Your task to perform on an android device: Open Google Chrome and click the shortcut for Amazon.com Image 0: 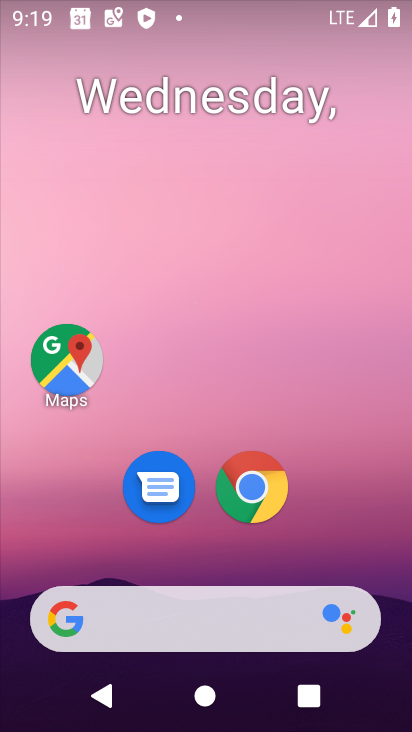
Step 0: drag from (263, 650) to (149, 238)
Your task to perform on an android device: Open Google Chrome and click the shortcut for Amazon.com Image 1: 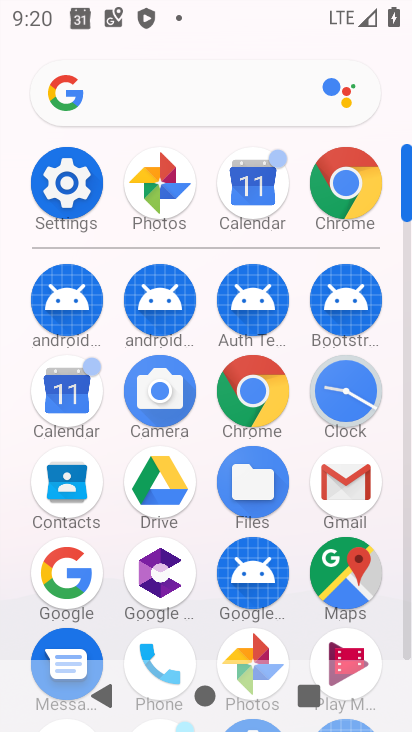
Step 1: click (330, 188)
Your task to perform on an android device: Open Google Chrome and click the shortcut for Amazon.com Image 2: 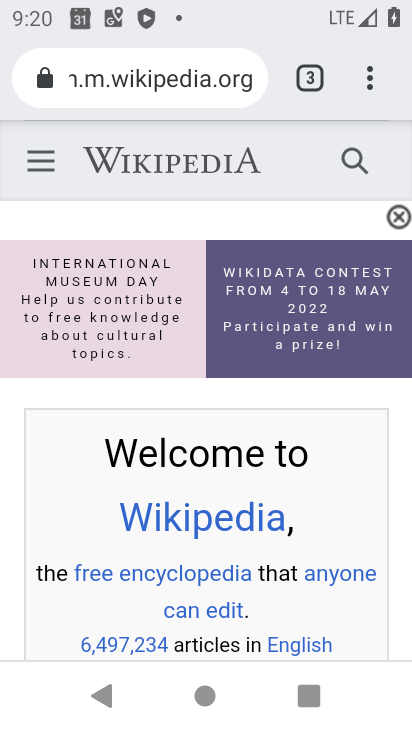
Step 2: click (308, 77)
Your task to perform on an android device: Open Google Chrome and click the shortcut for Amazon.com Image 3: 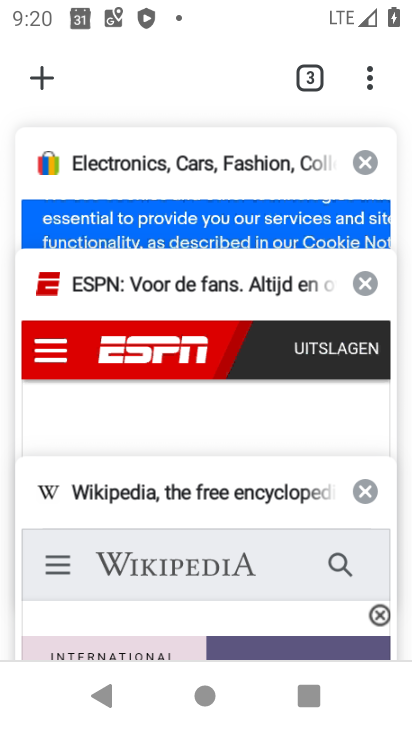
Step 3: click (52, 72)
Your task to perform on an android device: Open Google Chrome and click the shortcut for Amazon.com Image 4: 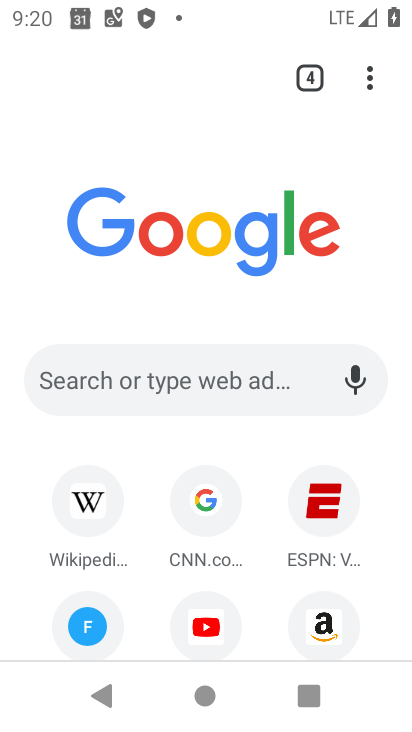
Step 4: click (332, 631)
Your task to perform on an android device: Open Google Chrome and click the shortcut for Amazon.com Image 5: 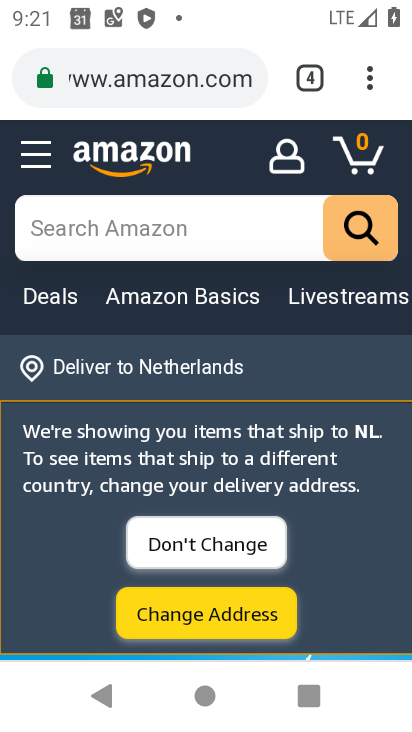
Step 5: task complete